Your task to perform on an android device: Open Youtube and go to "Your channel" Image 0: 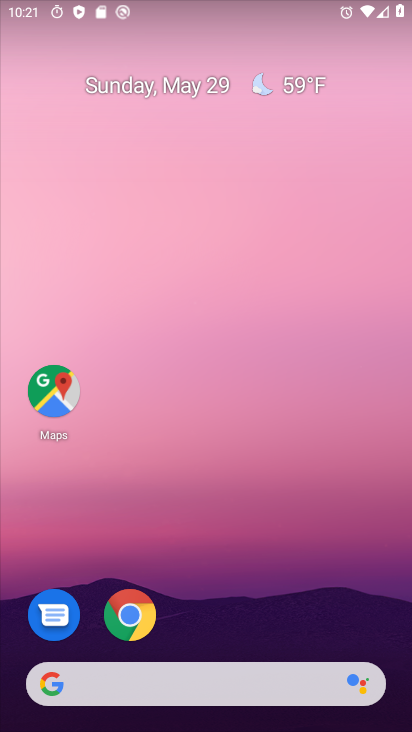
Step 0: drag from (221, 597) to (259, 24)
Your task to perform on an android device: Open Youtube and go to "Your channel" Image 1: 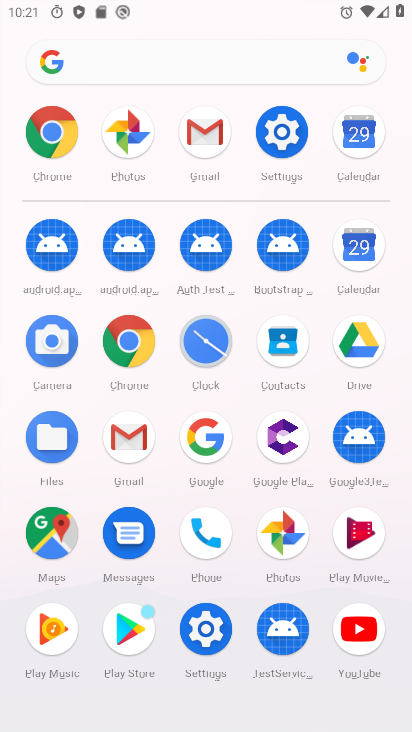
Step 1: click (351, 635)
Your task to perform on an android device: Open Youtube and go to "Your channel" Image 2: 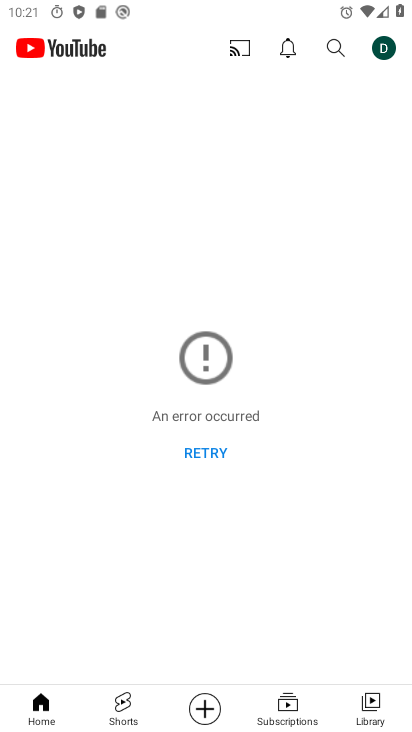
Step 2: click (381, 51)
Your task to perform on an android device: Open Youtube and go to "Your channel" Image 3: 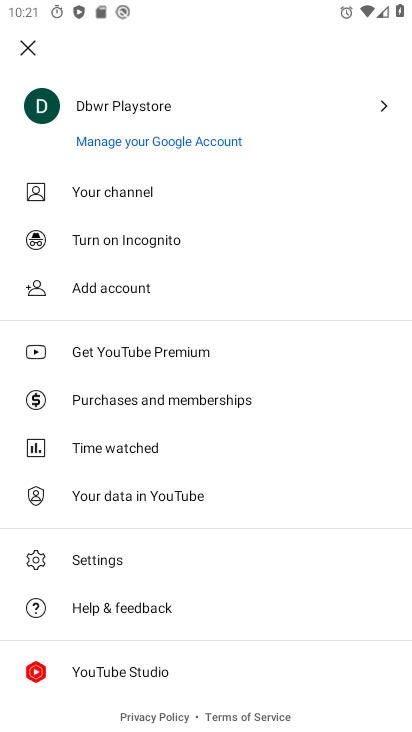
Step 3: click (143, 183)
Your task to perform on an android device: Open Youtube and go to "Your channel" Image 4: 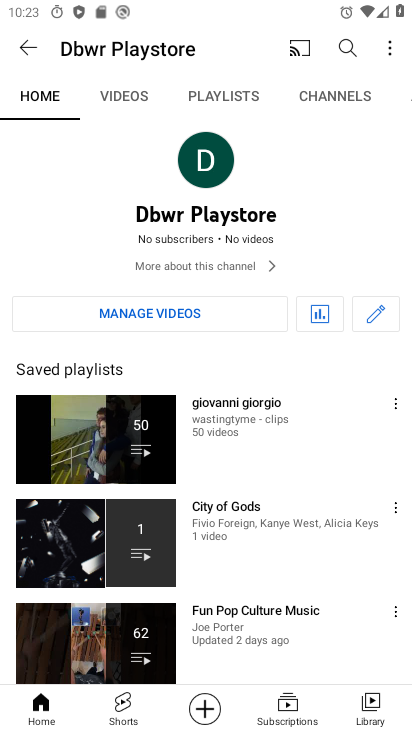
Step 4: task complete